Your task to perform on an android device: visit the assistant section in the google photos Image 0: 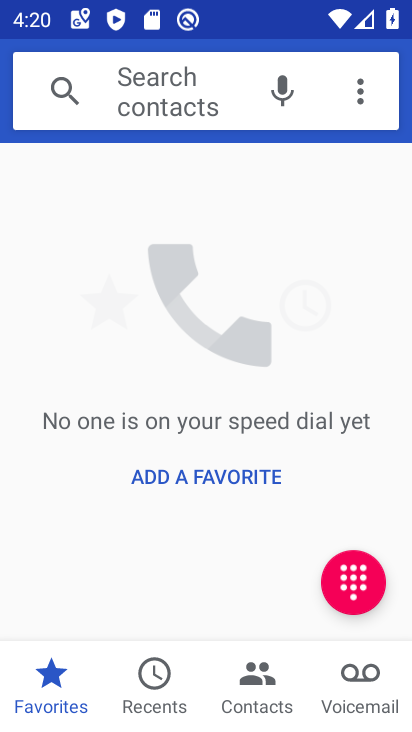
Step 0: press home button
Your task to perform on an android device: visit the assistant section in the google photos Image 1: 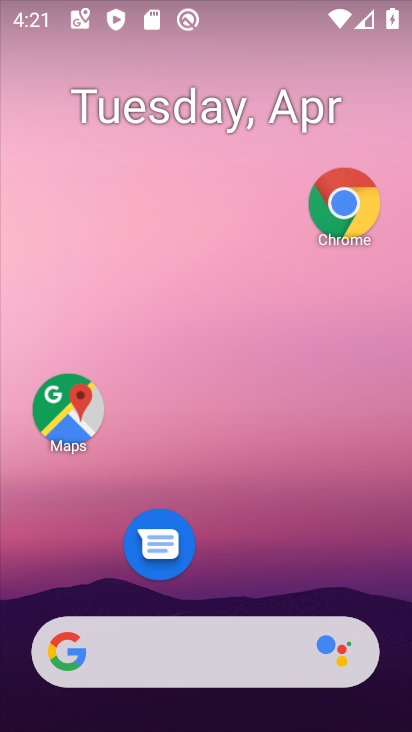
Step 1: drag from (246, 561) to (308, 8)
Your task to perform on an android device: visit the assistant section in the google photos Image 2: 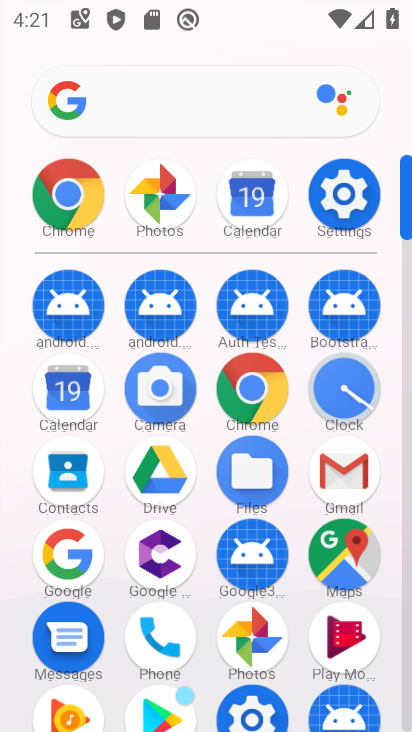
Step 2: click (261, 639)
Your task to perform on an android device: visit the assistant section in the google photos Image 3: 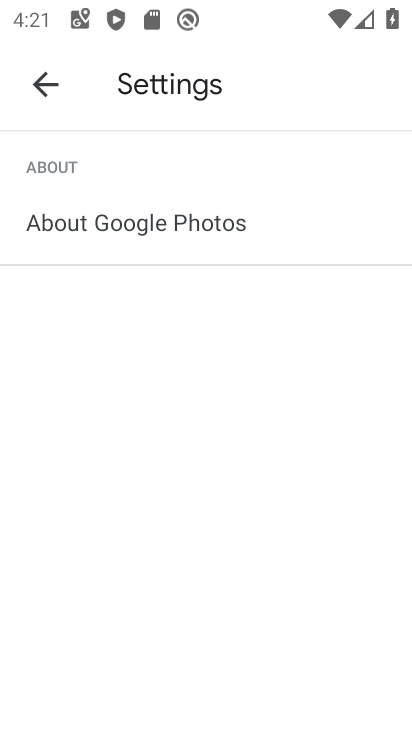
Step 3: click (40, 91)
Your task to perform on an android device: visit the assistant section in the google photos Image 4: 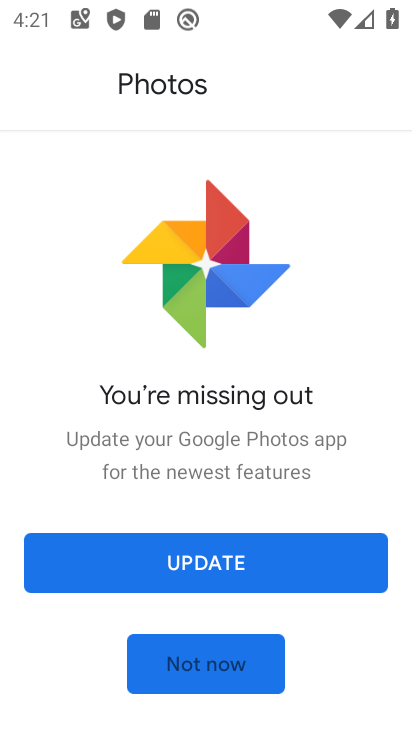
Step 4: click (249, 677)
Your task to perform on an android device: visit the assistant section in the google photos Image 5: 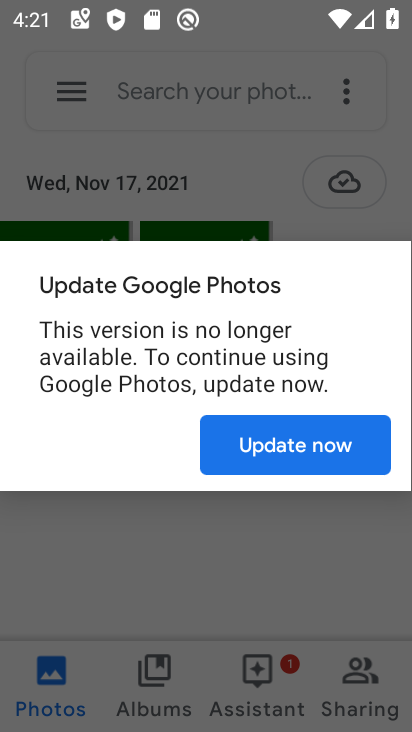
Step 5: click (302, 443)
Your task to perform on an android device: visit the assistant section in the google photos Image 6: 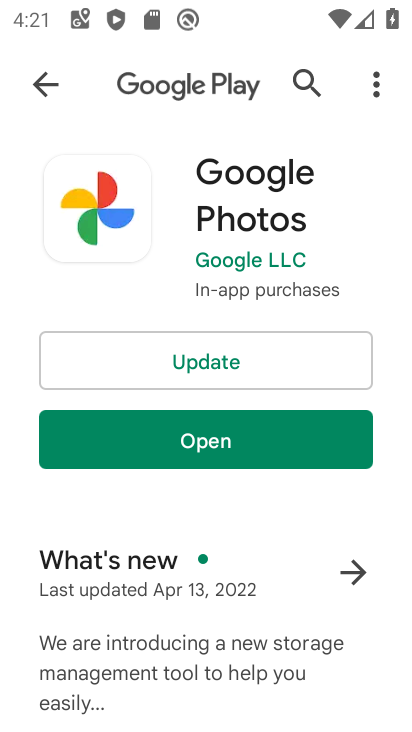
Step 6: click (256, 471)
Your task to perform on an android device: visit the assistant section in the google photos Image 7: 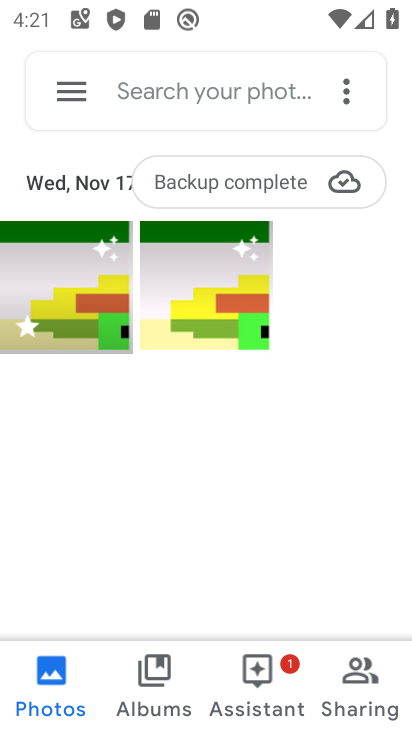
Step 7: click (270, 678)
Your task to perform on an android device: visit the assistant section in the google photos Image 8: 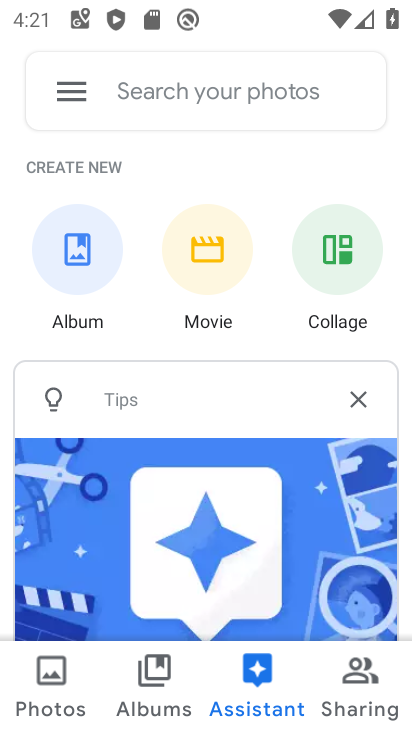
Step 8: task complete